Your task to perform on an android device: see sites visited before in the chrome app Image 0: 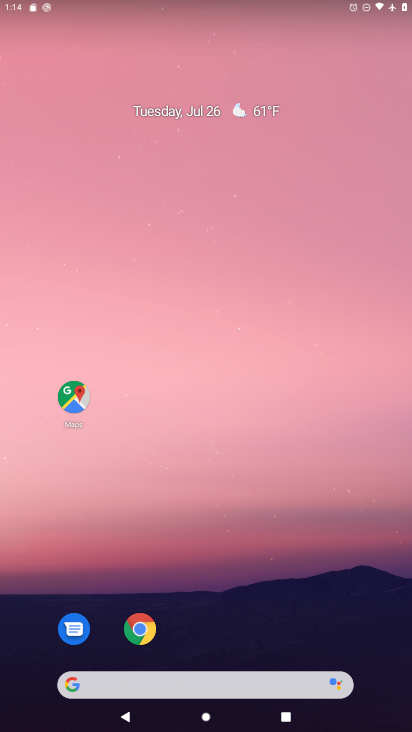
Step 0: click (154, 635)
Your task to perform on an android device: see sites visited before in the chrome app Image 1: 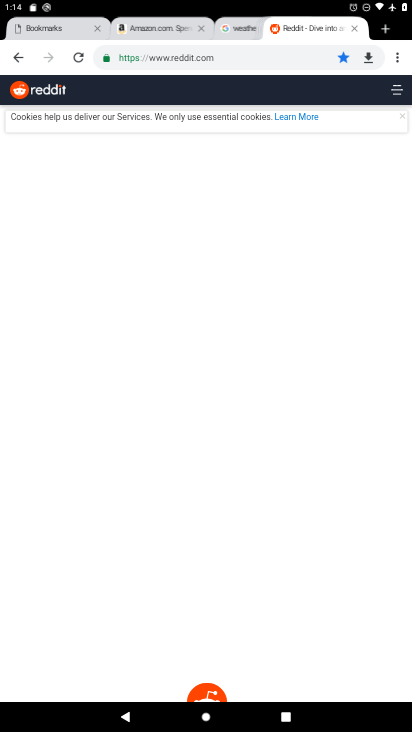
Step 1: click (391, 59)
Your task to perform on an android device: see sites visited before in the chrome app Image 2: 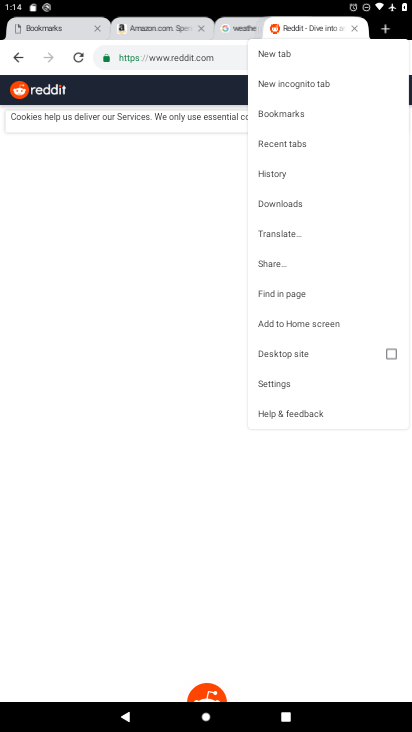
Step 2: click (283, 181)
Your task to perform on an android device: see sites visited before in the chrome app Image 3: 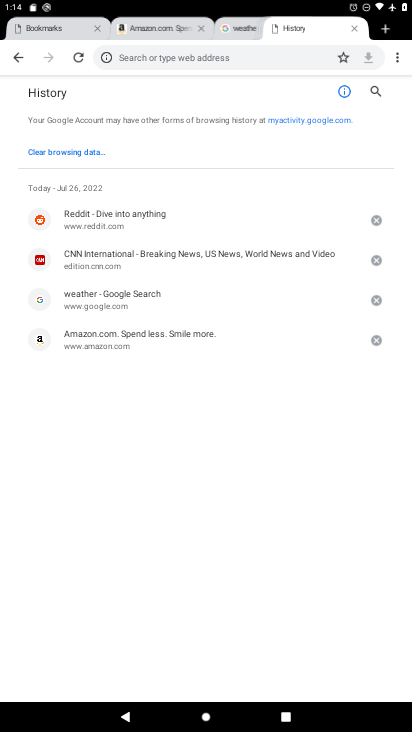
Step 3: task complete